Your task to perform on an android device: add a contact in the contacts app Image 0: 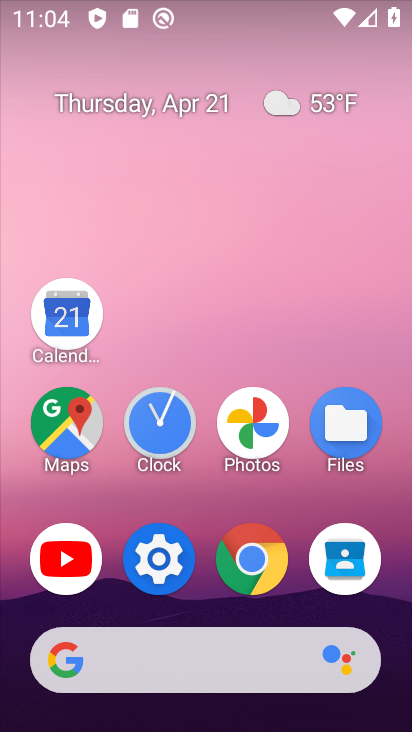
Step 0: click (347, 557)
Your task to perform on an android device: add a contact in the contacts app Image 1: 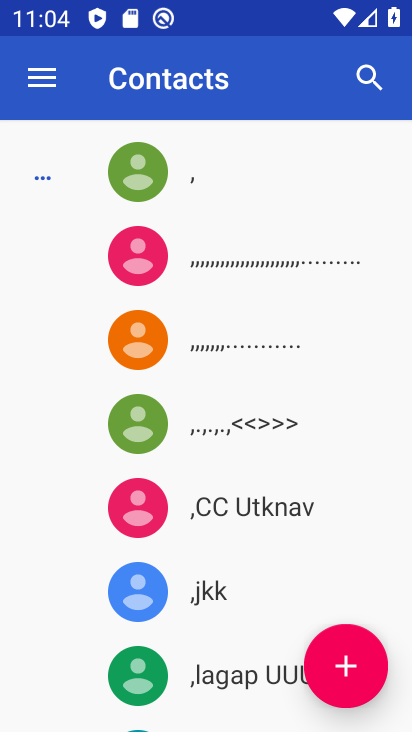
Step 1: click (341, 667)
Your task to perform on an android device: add a contact in the contacts app Image 2: 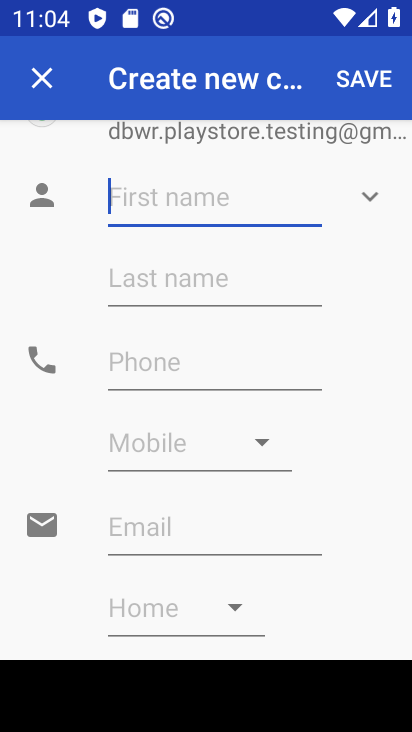
Step 2: type "popo"
Your task to perform on an android device: add a contact in the contacts app Image 3: 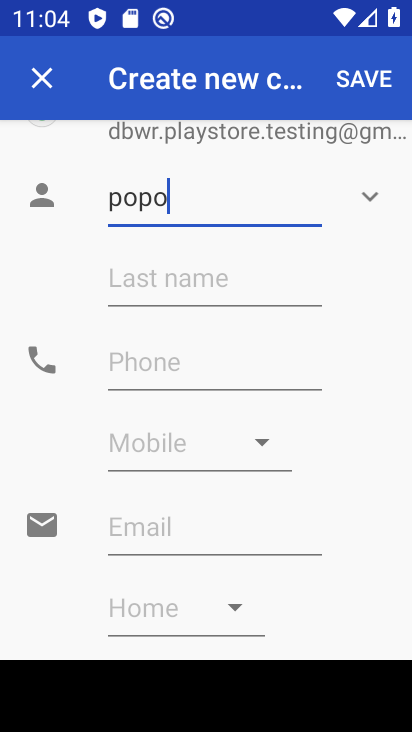
Step 3: click (183, 373)
Your task to perform on an android device: add a contact in the contacts app Image 4: 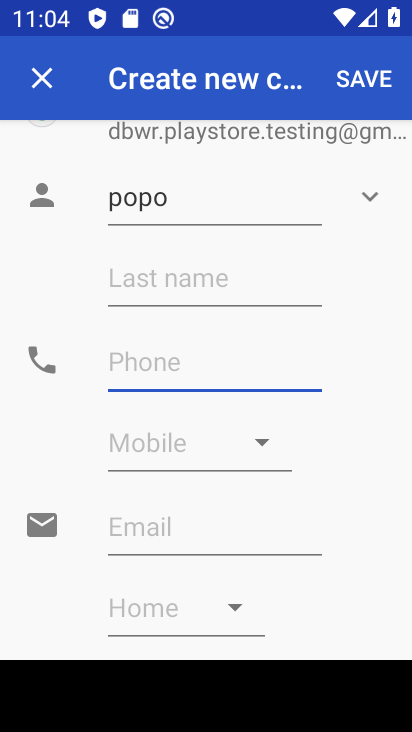
Step 4: type "878"
Your task to perform on an android device: add a contact in the contacts app Image 5: 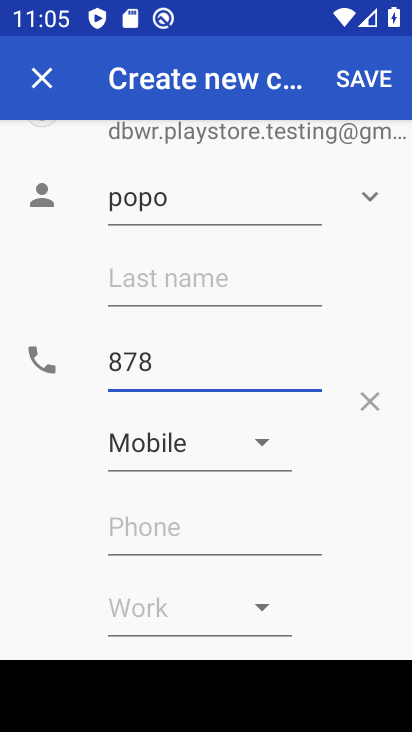
Step 5: click (370, 76)
Your task to perform on an android device: add a contact in the contacts app Image 6: 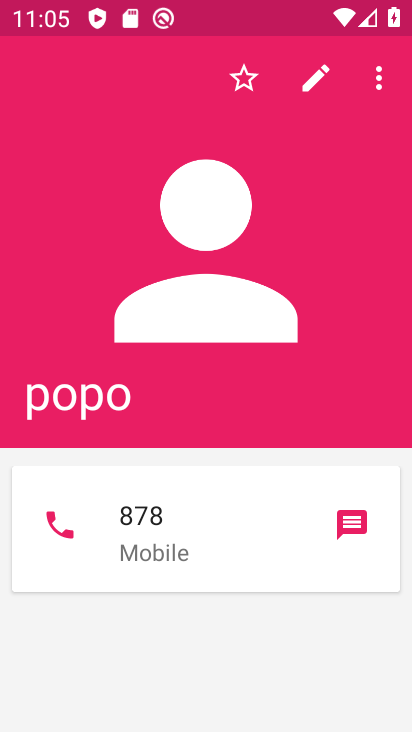
Step 6: task complete